Your task to perform on an android device: check the backup settings in the google photos Image 0: 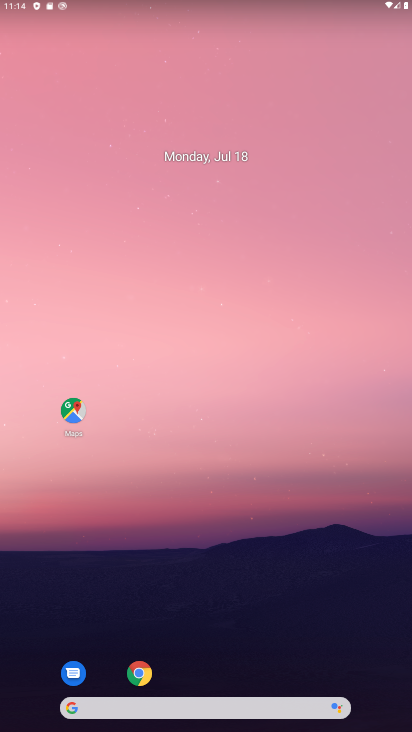
Step 0: press home button
Your task to perform on an android device: check the backup settings in the google photos Image 1: 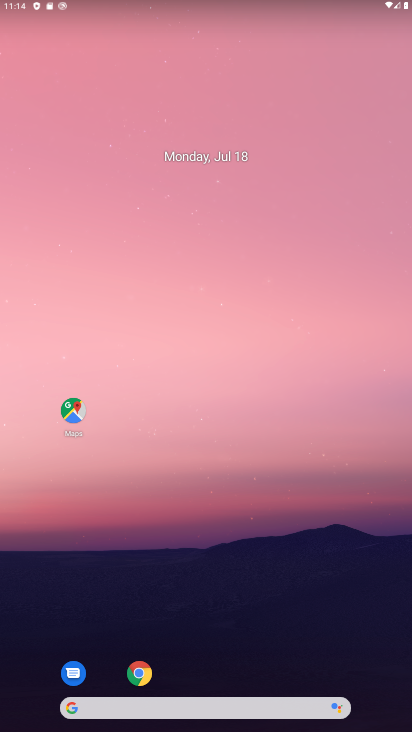
Step 1: drag from (209, 678) to (215, 32)
Your task to perform on an android device: check the backup settings in the google photos Image 2: 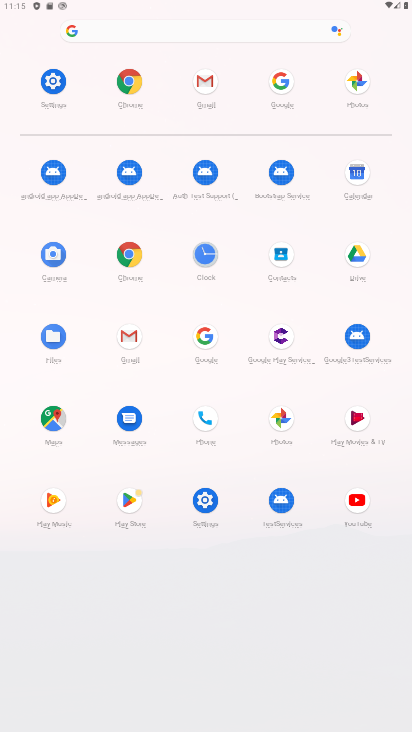
Step 2: click (354, 77)
Your task to perform on an android device: check the backup settings in the google photos Image 3: 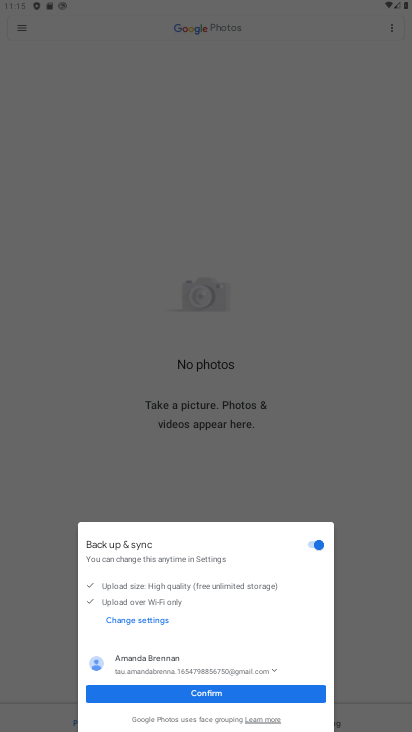
Step 3: click (212, 693)
Your task to perform on an android device: check the backup settings in the google photos Image 4: 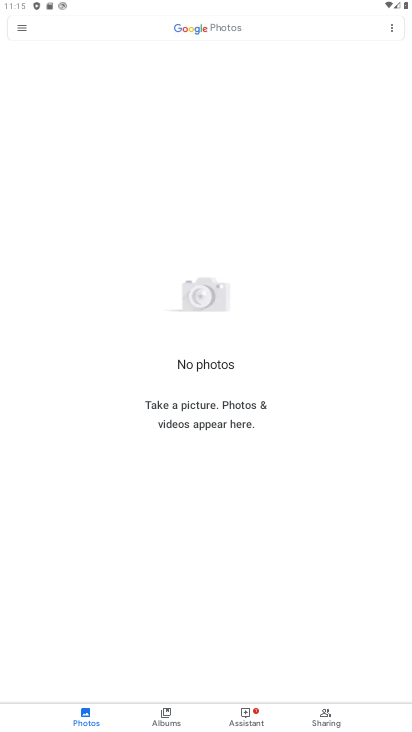
Step 4: click (22, 26)
Your task to perform on an android device: check the backup settings in the google photos Image 5: 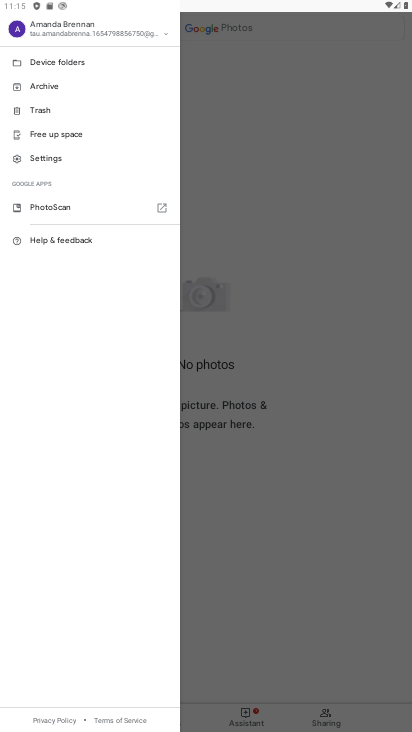
Step 5: click (51, 158)
Your task to perform on an android device: check the backup settings in the google photos Image 6: 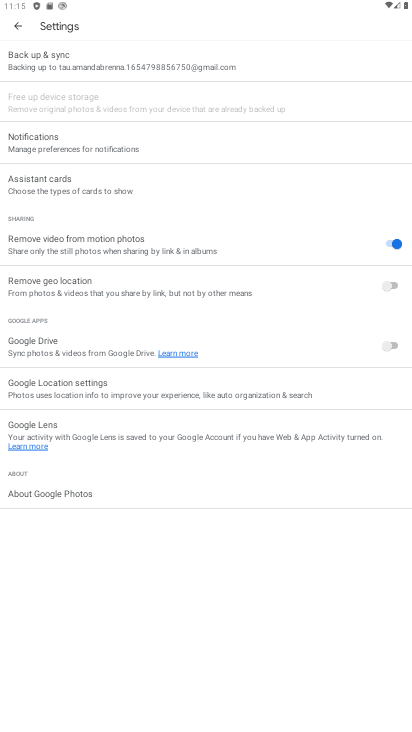
Step 6: click (99, 52)
Your task to perform on an android device: check the backup settings in the google photos Image 7: 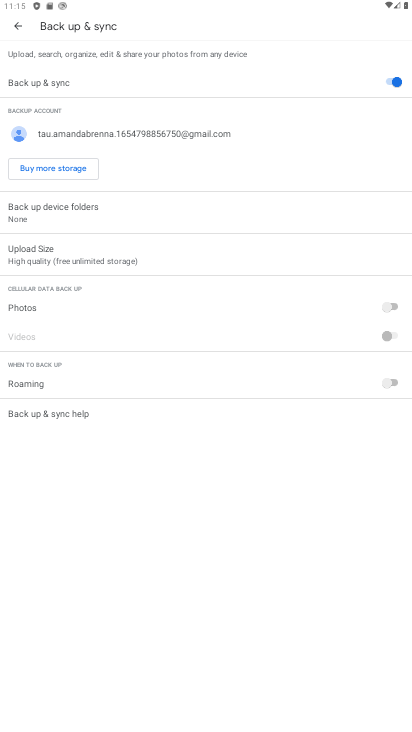
Step 7: task complete